Your task to perform on an android device: Go to calendar. Show me events next week Image 0: 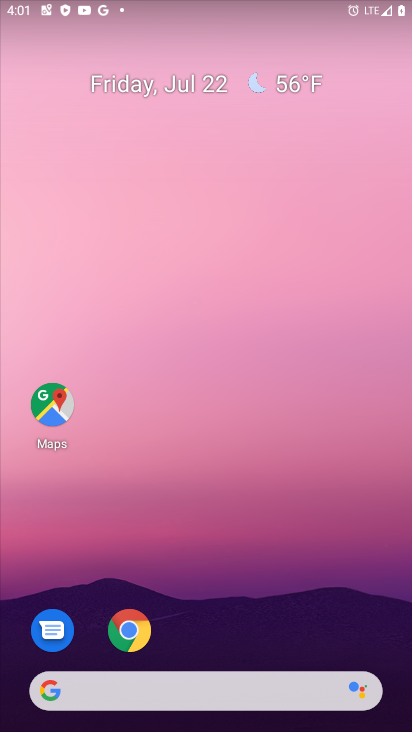
Step 0: drag from (218, 695) to (185, 114)
Your task to perform on an android device: Go to calendar. Show me events next week Image 1: 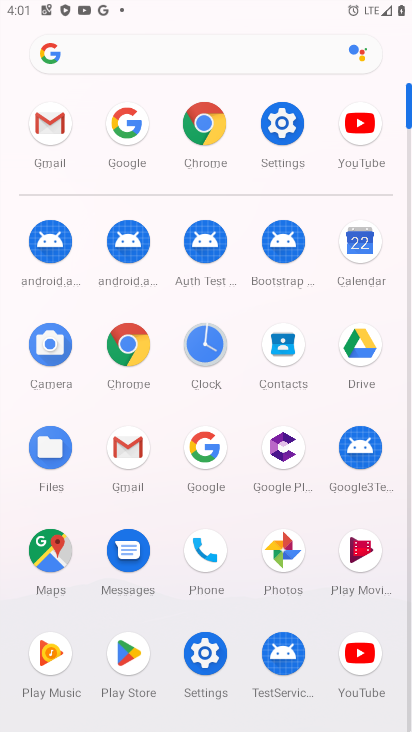
Step 1: click (371, 261)
Your task to perform on an android device: Go to calendar. Show me events next week Image 2: 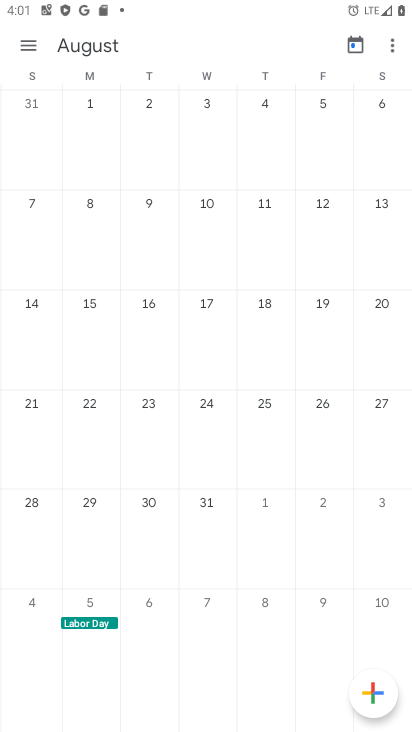
Step 2: task complete